Your task to perform on an android device: see sites visited before in the chrome app Image 0: 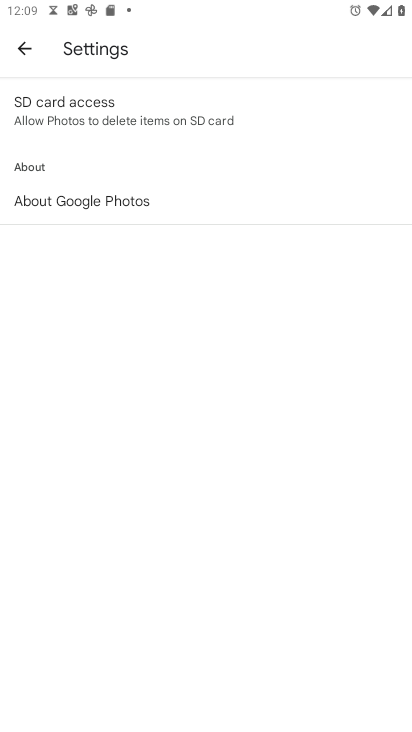
Step 0: press home button
Your task to perform on an android device: see sites visited before in the chrome app Image 1: 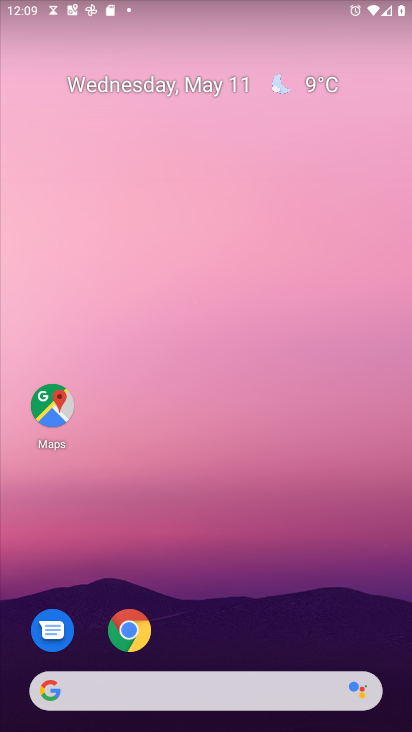
Step 1: click (123, 629)
Your task to perform on an android device: see sites visited before in the chrome app Image 2: 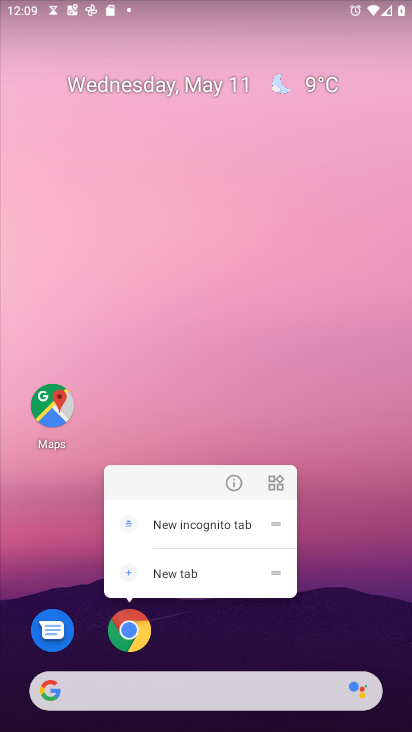
Step 2: click (123, 629)
Your task to perform on an android device: see sites visited before in the chrome app Image 3: 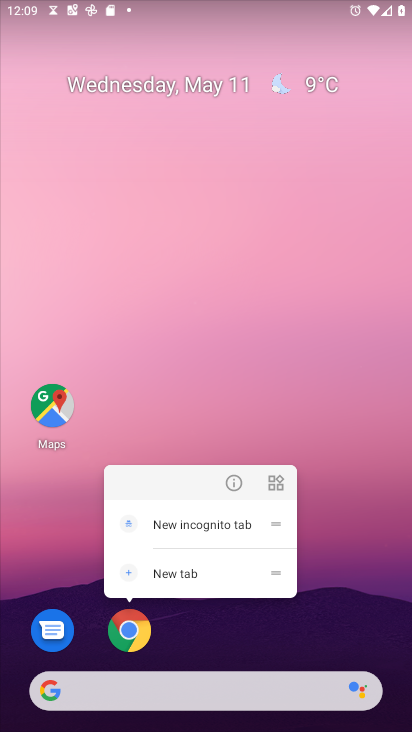
Step 3: click (123, 629)
Your task to perform on an android device: see sites visited before in the chrome app Image 4: 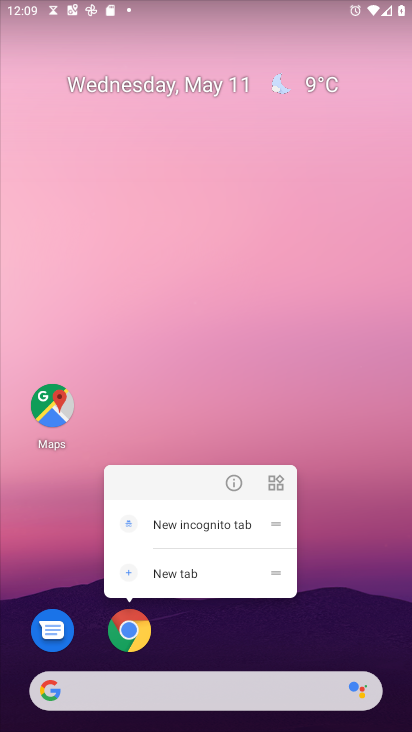
Step 4: click (131, 646)
Your task to perform on an android device: see sites visited before in the chrome app Image 5: 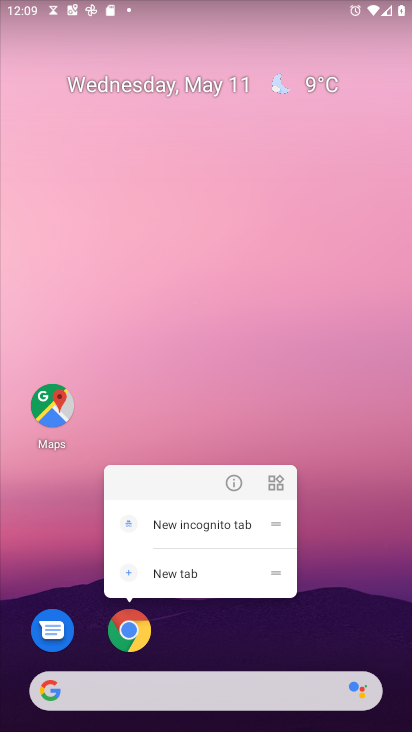
Step 5: click (131, 646)
Your task to perform on an android device: see sites visited before in the chrome app Image 6: 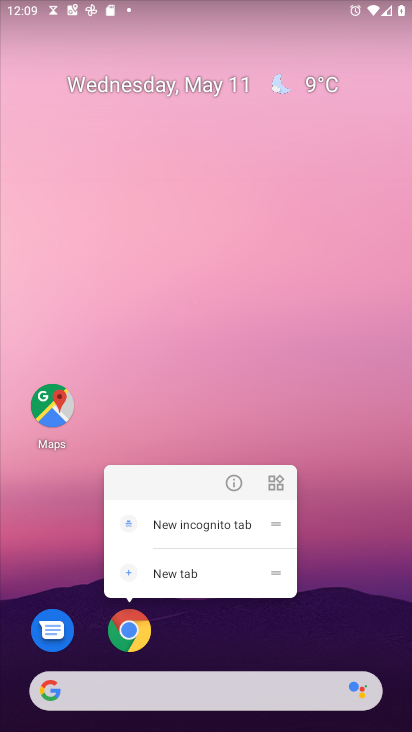
Step 6: click (131, 646)
Your task to perform on an android device: see sites visited before in the chrome app Image 7: 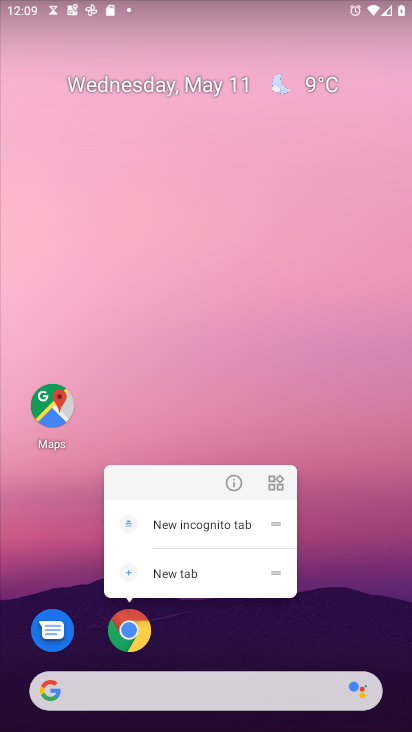
Step 7: click (131, 646)
Your task to perform on an android device: see sites visited before in the chrome app Image 8: 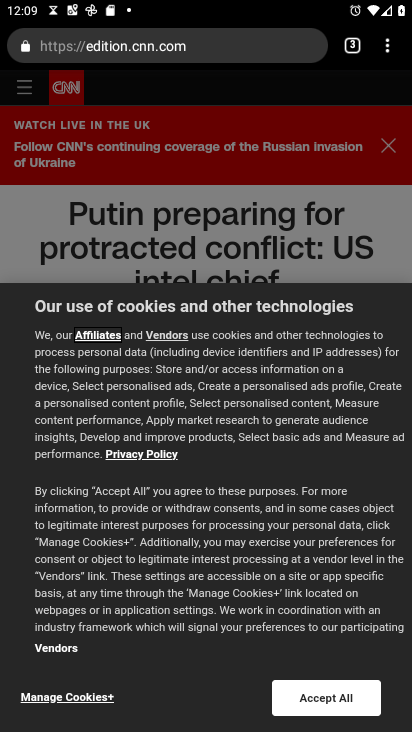
Step 8: click (383, 51)
Your task to perform on an android device: see sites visited before in the chrome app Image 9: 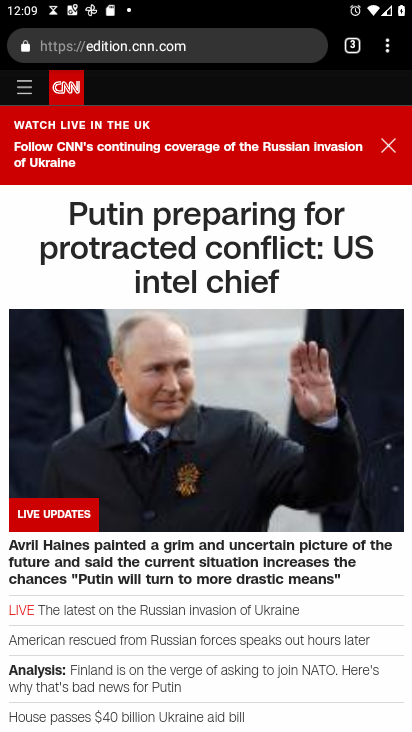
Step 9: click (388, 41)
Your task to perform on an android device: see sites visited before in the chrome app Image 10: 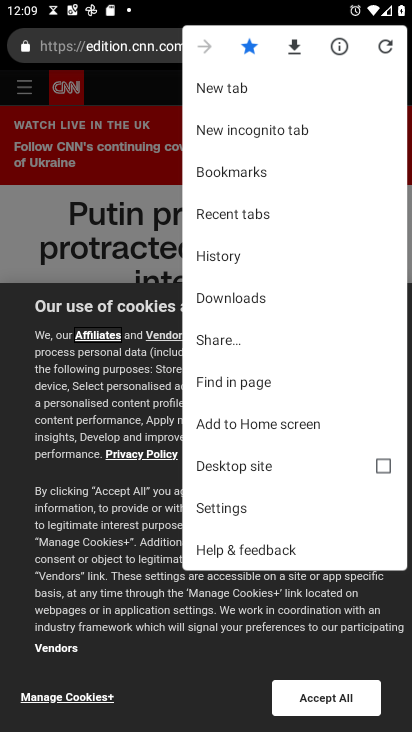
Step 10: click (281, 504)
Your task to perform on an android device: see sites visited before in the chrome app Image 11: 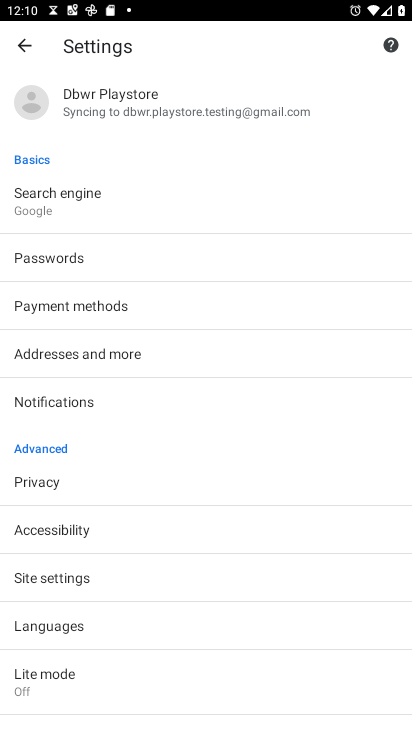
Step 11: press back button
Your task to perform on an android device: see sites visited before in the chrome app Image 12: 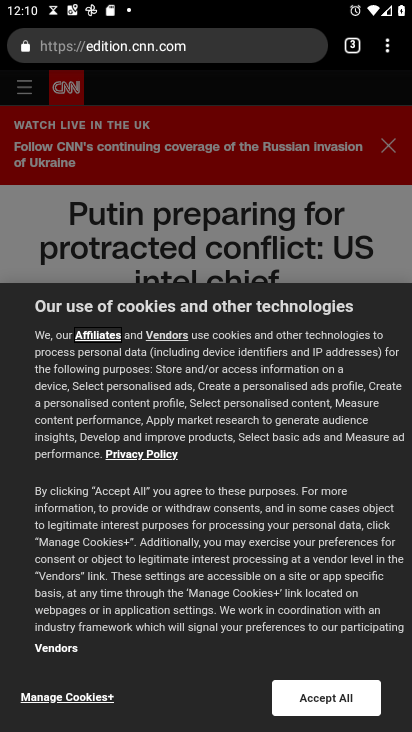
Step 12: press back button
Your task to perform on an android device: see sites visited before in the chrome app Image 13: 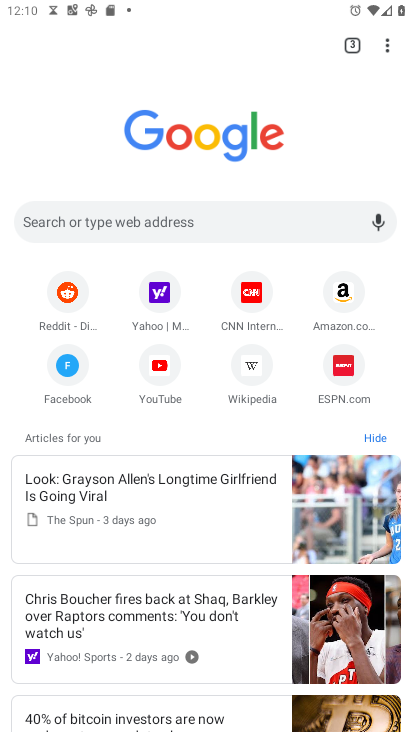
Step 13: click (384, 42)
Your task to perform on an android device: see sites visited before in the chrome app Image 14: 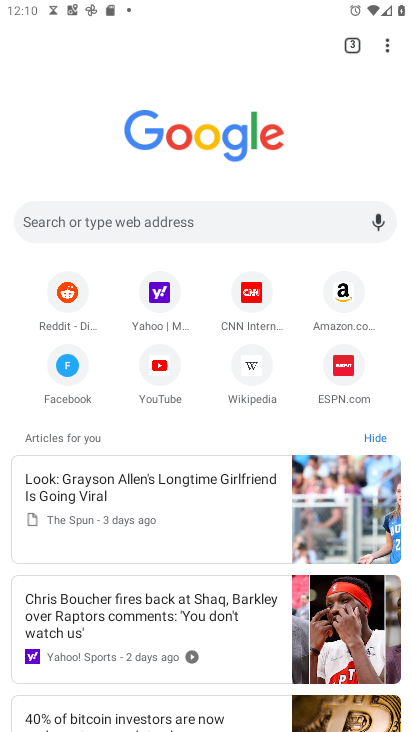
Step 14: click (384, 42)
Your task to perform on an android device: see sites visited before in the chrome app Image 15: 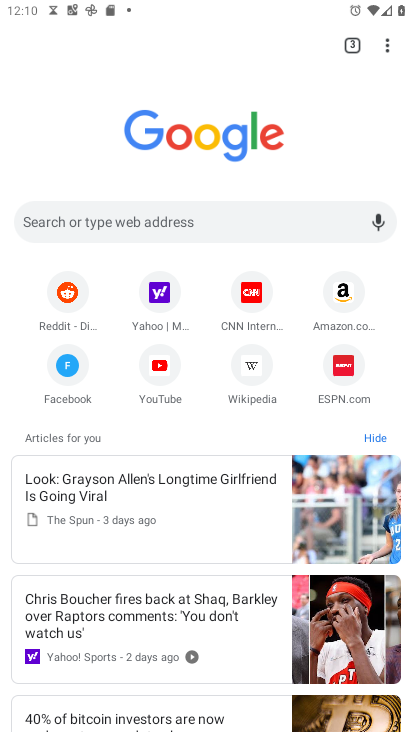
Step 15: click (384, 42)
Your task to perform on an android device: see sites visited before in the chrome app Image 16: 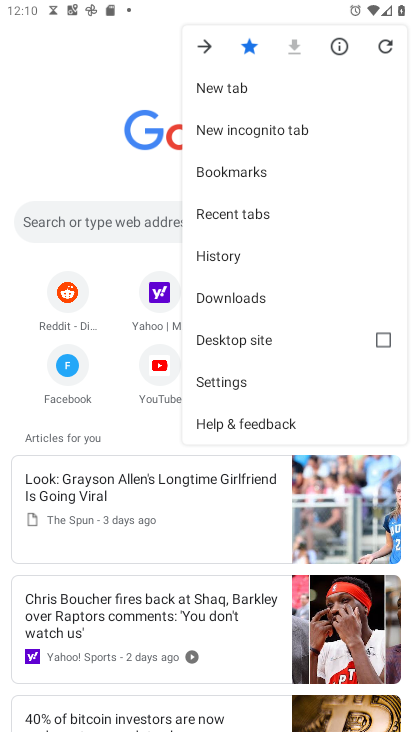
Step 16: click (313, 216)
Your task to perform on an android device: see sites visited before in the chrome app Image 17: 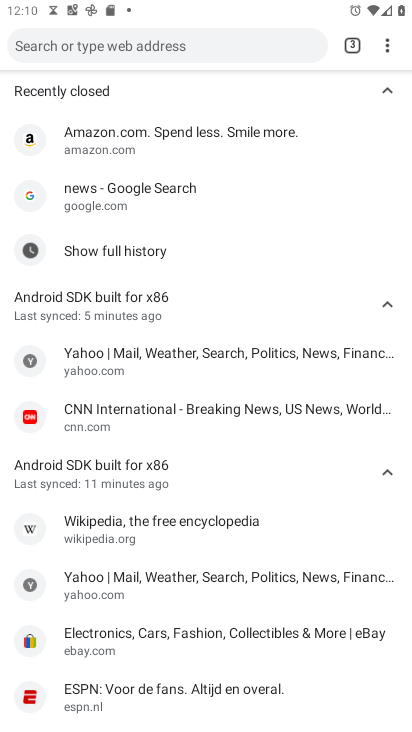
Step 17: task complete